Your task to perform on an android device: manage bookmarks in the chrome app Image 0: 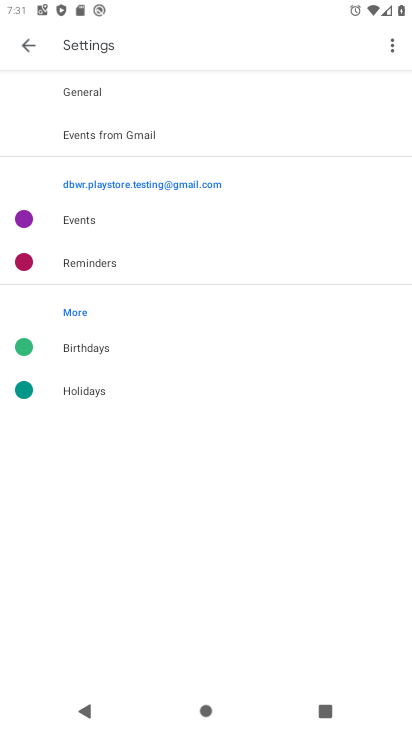
Step 0: press home button
Your task to perform on an android device: manage bookmarks in the chrome app Image 1: 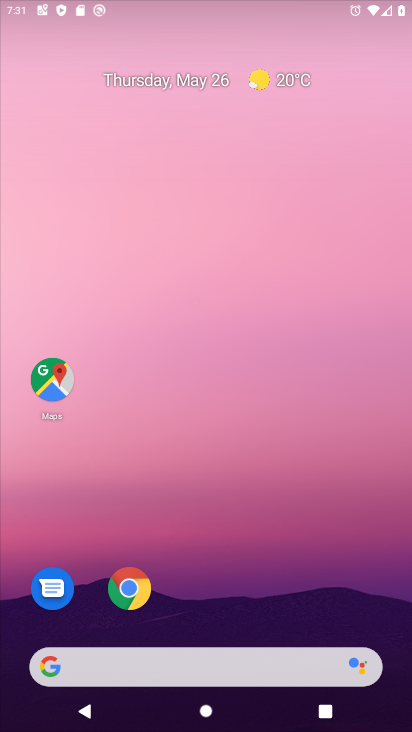
Step 1: drag from (386, 639) to (348, 59)
Your task to perform on an android device: manage bookmarks in the chrome app Image 2: 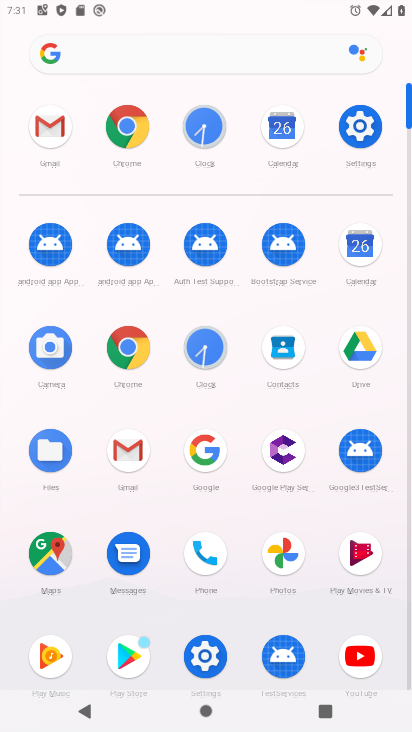
Step 2: click (120, 361)
Your task to perform on an android device: manage bookmarks in the chrome app Image 3: 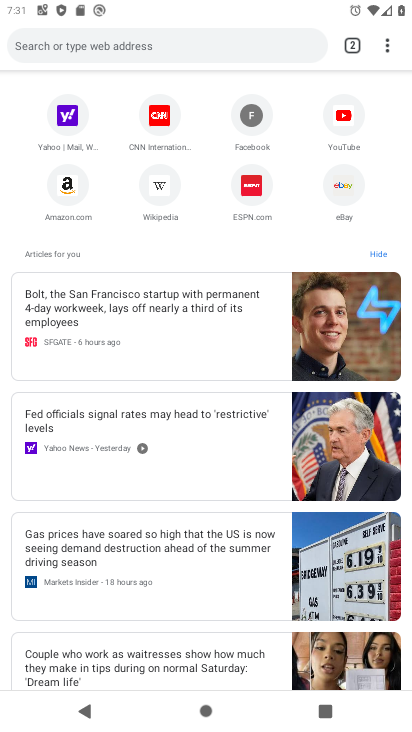
Step 3: click (386, 45)
Your task to perform on an android device: manage bookmarks in the chrome app Image 4: 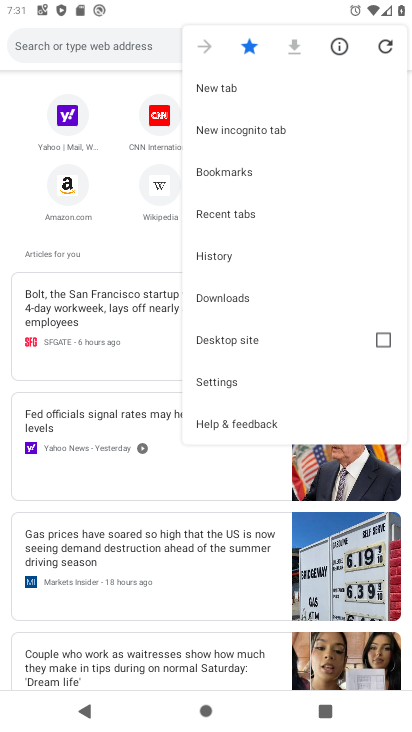
Step 4: click (280, 167)
Your task to perform on an android device: manage bookmarks in the chrome app Image 5: 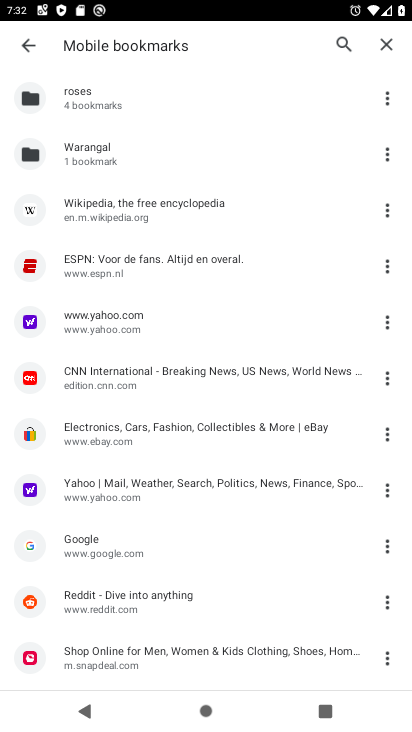
Step 5: task complete